Your task to perform on an android device: Open calendar and show me the second week of next month Image 0: 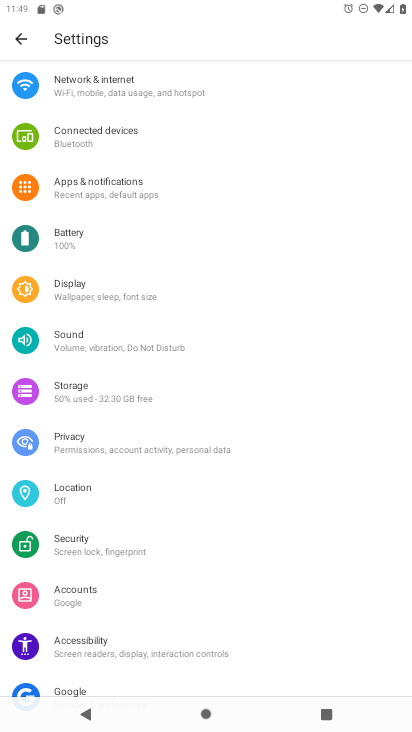
Step 0: press home button
Your task to perform on an android device: Open calendar and show me the second week of next month Image 1: 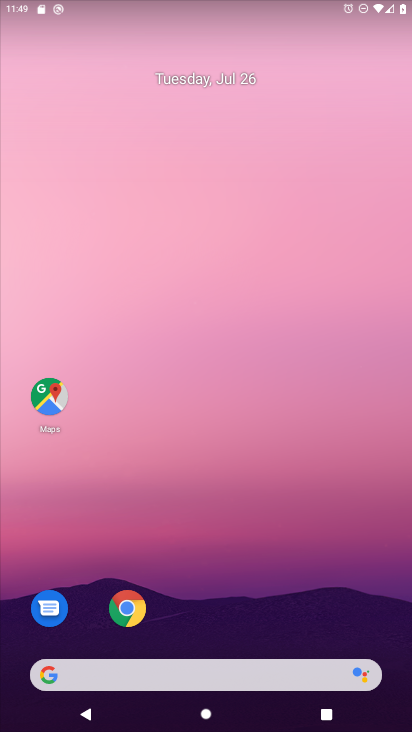
Step 1: drag from (293, 636) to (309, 130)
Your task to perform on an android device: Open calendar and show me the second week of next month Image 2: 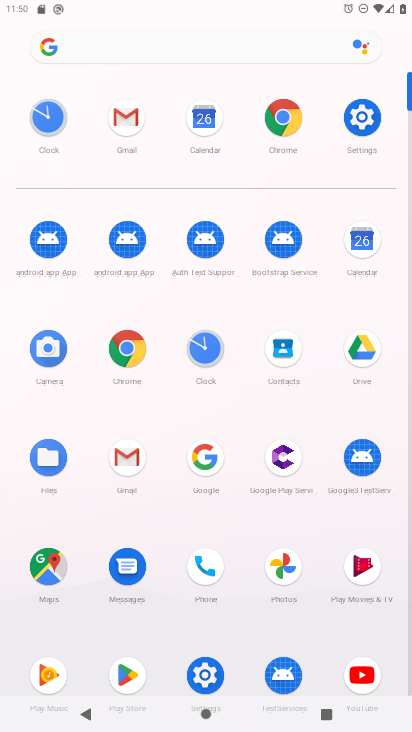
Step 2: click (209, 123)
Your task to perform on an android device: Open calendar and show me the second week of next month Image 3: 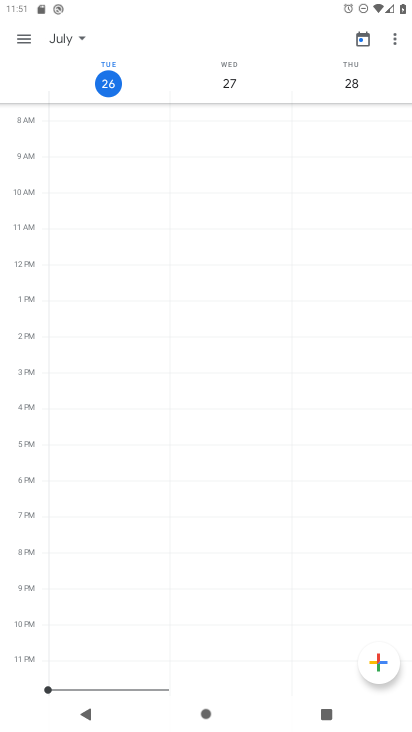
Step 3: click (77, 40)
Your task to perform on an android device: Open calendar and show me the second week of next month Image 4: 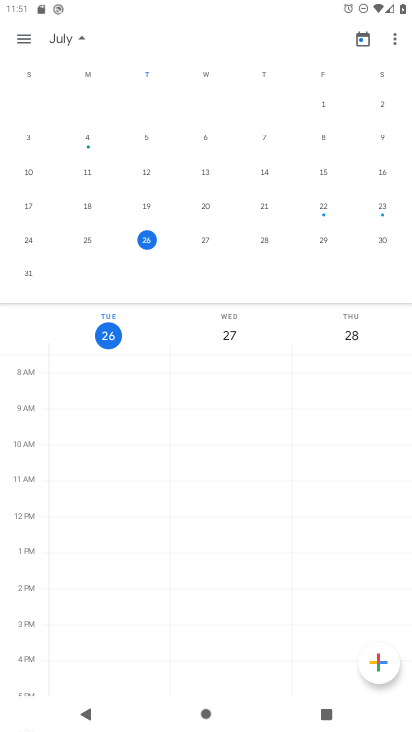
Step 4: drag from (376, 233) to (4, 186)
Your task to perform on an android device: Open calendar and show me the second week of next month Image 5: 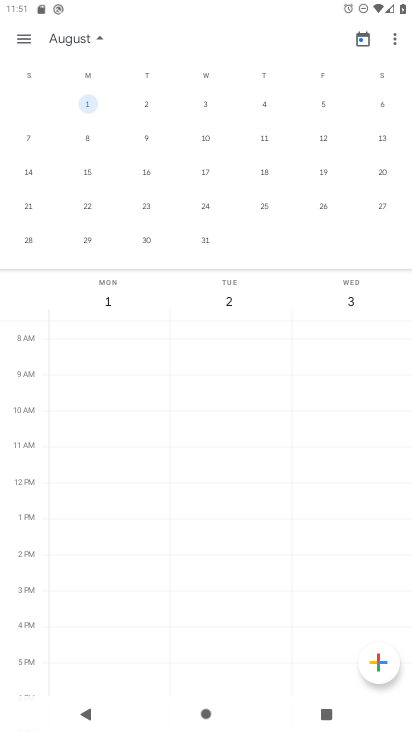
Step 5: click (144, 136)
Your task to perform on an android device: Open calendar and show me the second week of next month Image 6: 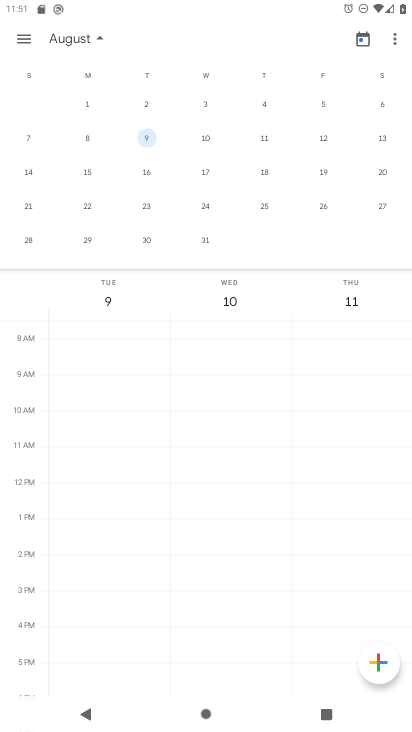
Step 6: click (29, 33)
Your task to perform on an android device: Open calendar and show me the second week of next month Image 7: 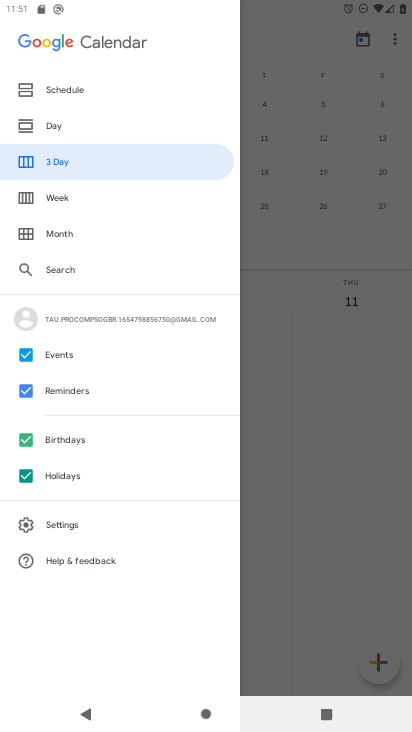
Step 7: click (74, 198)
Your task to perform on an android device: Open calendar and show me the second week of next month Image 8: 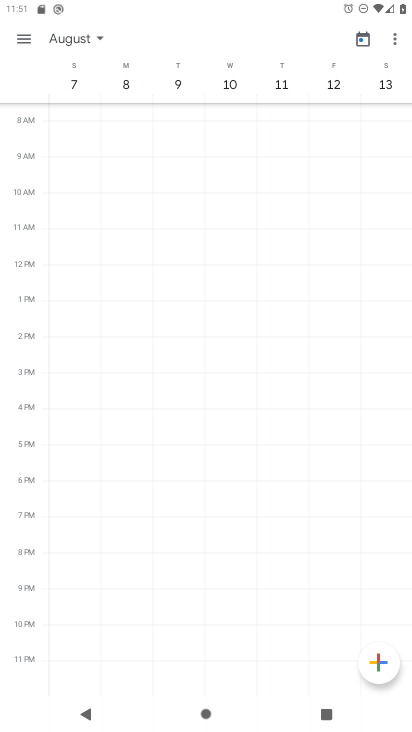
Step 8: task complete